Your task to perform on an android device: Search for custom t-shirts on Etsy. Image 0: 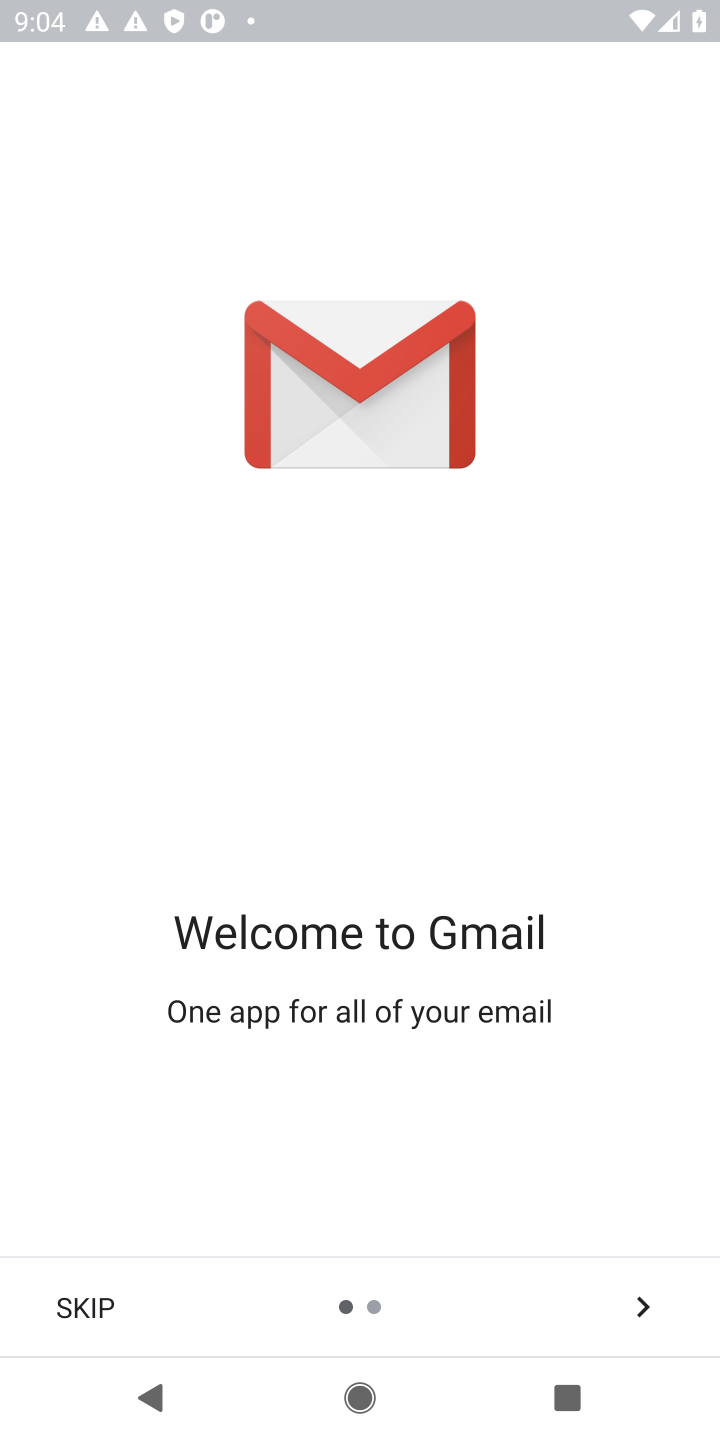
Step 0: press home button
Your task to perform on an android device: Search for custom t-shirts on Etsy. Image 1: 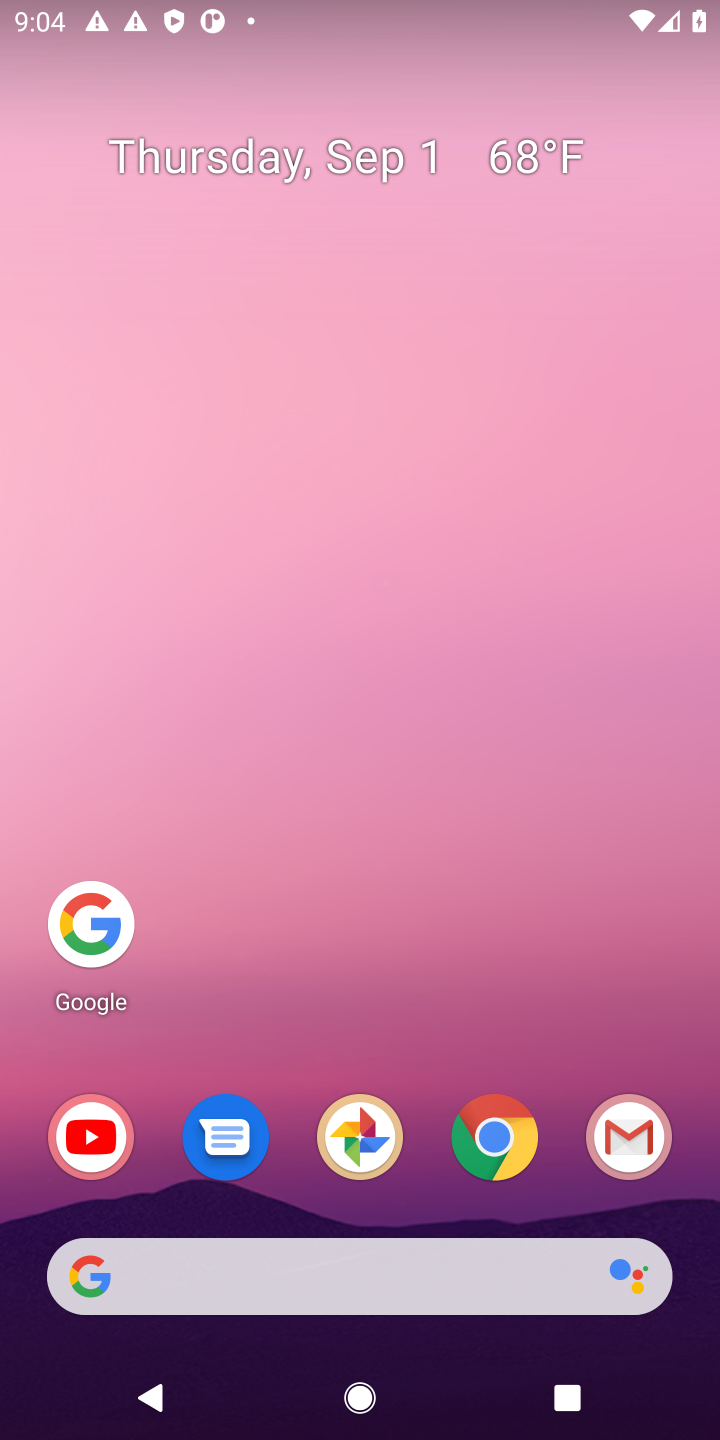
Step 1: click (162, 1278)
Your task to perform on an android device: Search for custom t-shirts on Etsy. Image 2: 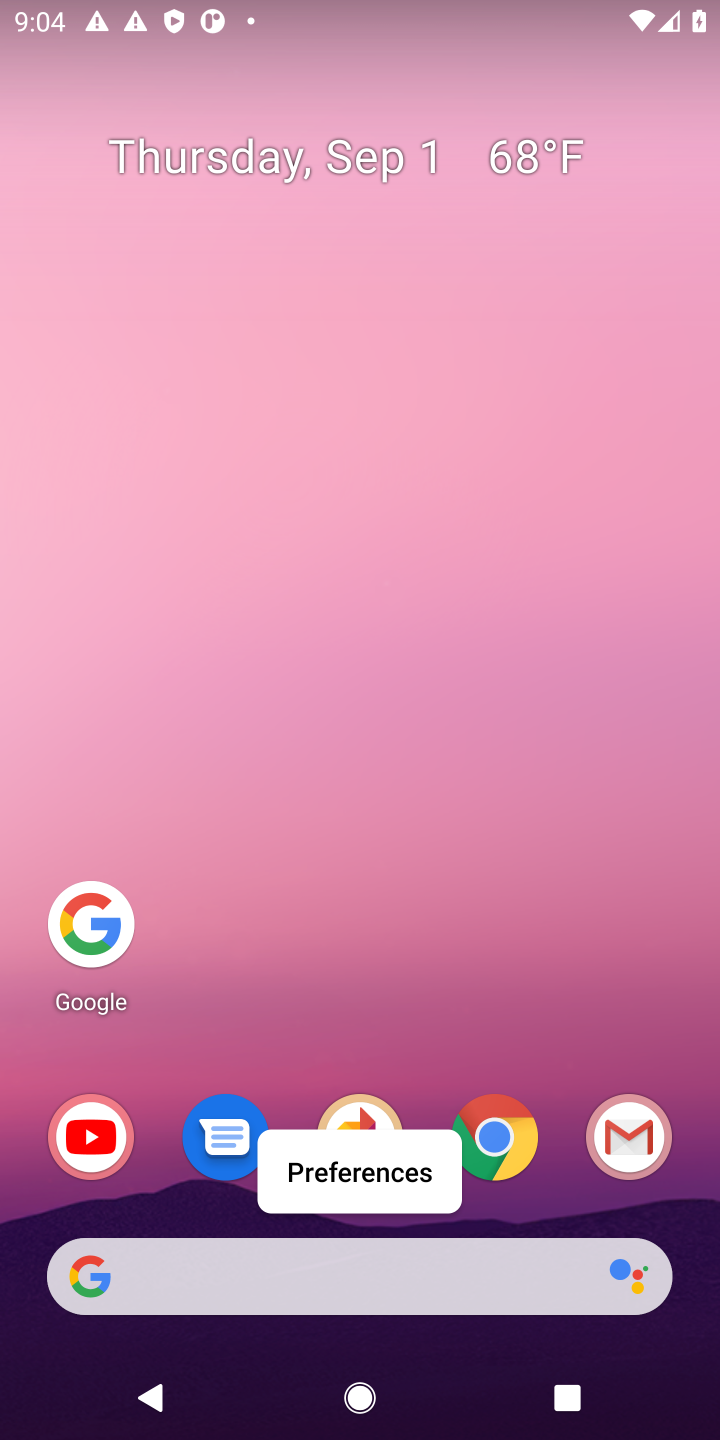
Step 2: click (97, 1282)
Your task to perform on an android device: Search for custom t-shirts on Etsy. Image 3: 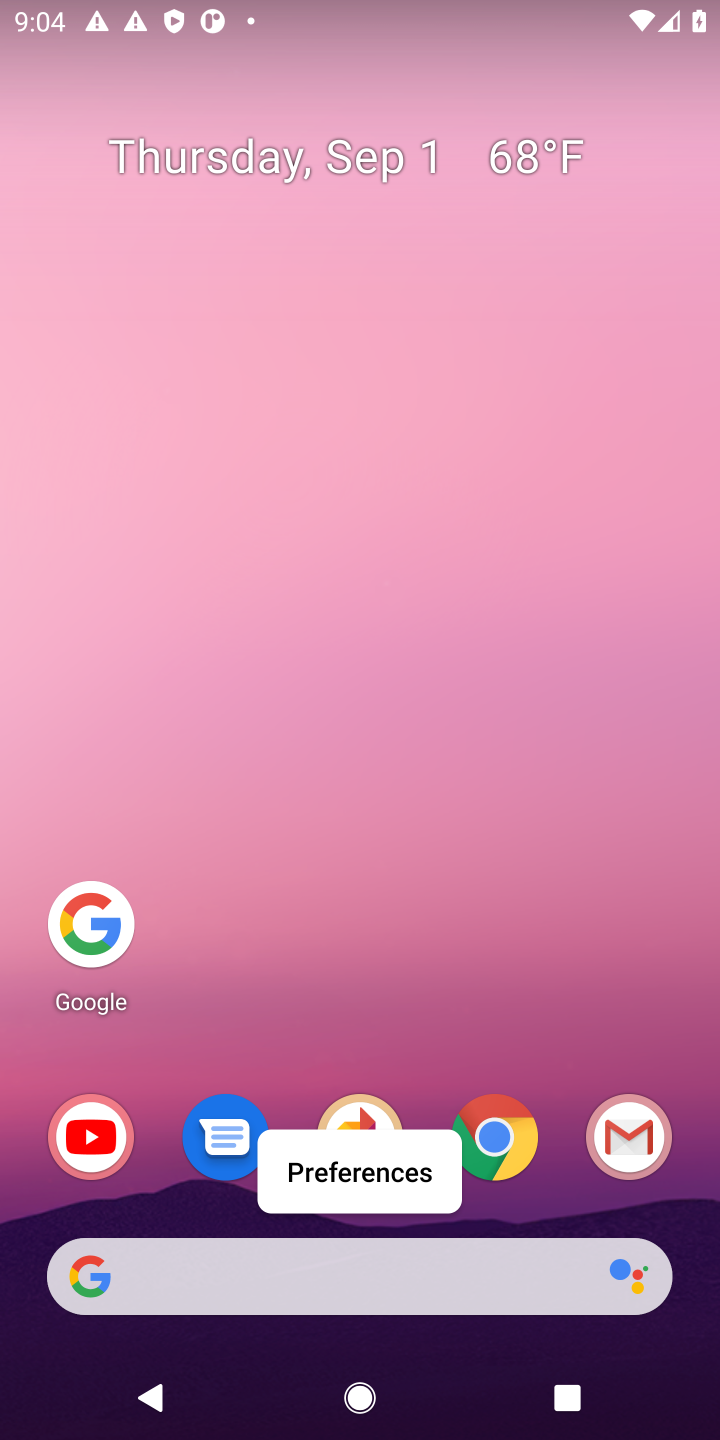
Step 3: click (85, 1297)
Your task to perform on an android device: Search for custom t-shirts on Etsy. Image 4: 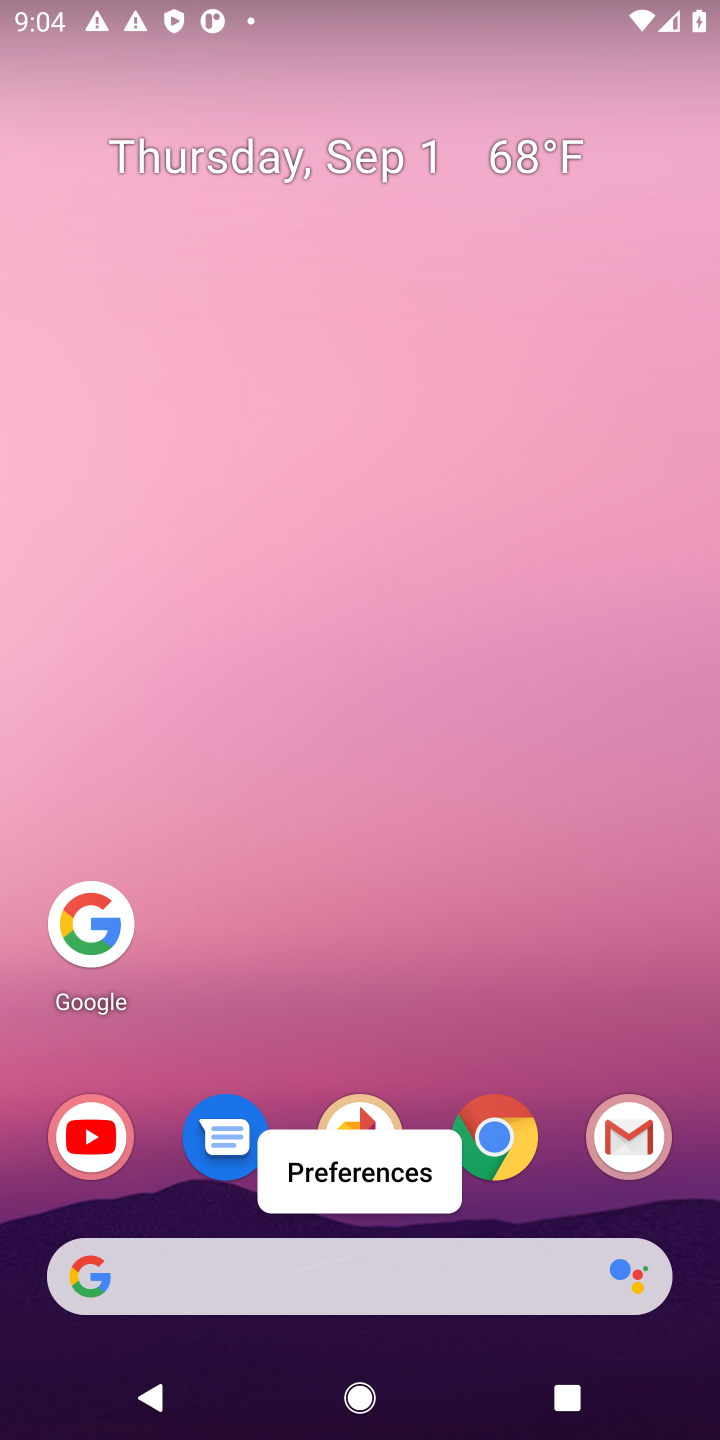
Step 4: click (81, 922)
Your task to perform on an android device: Search for custom t-shirts on Etsy. Image 5: 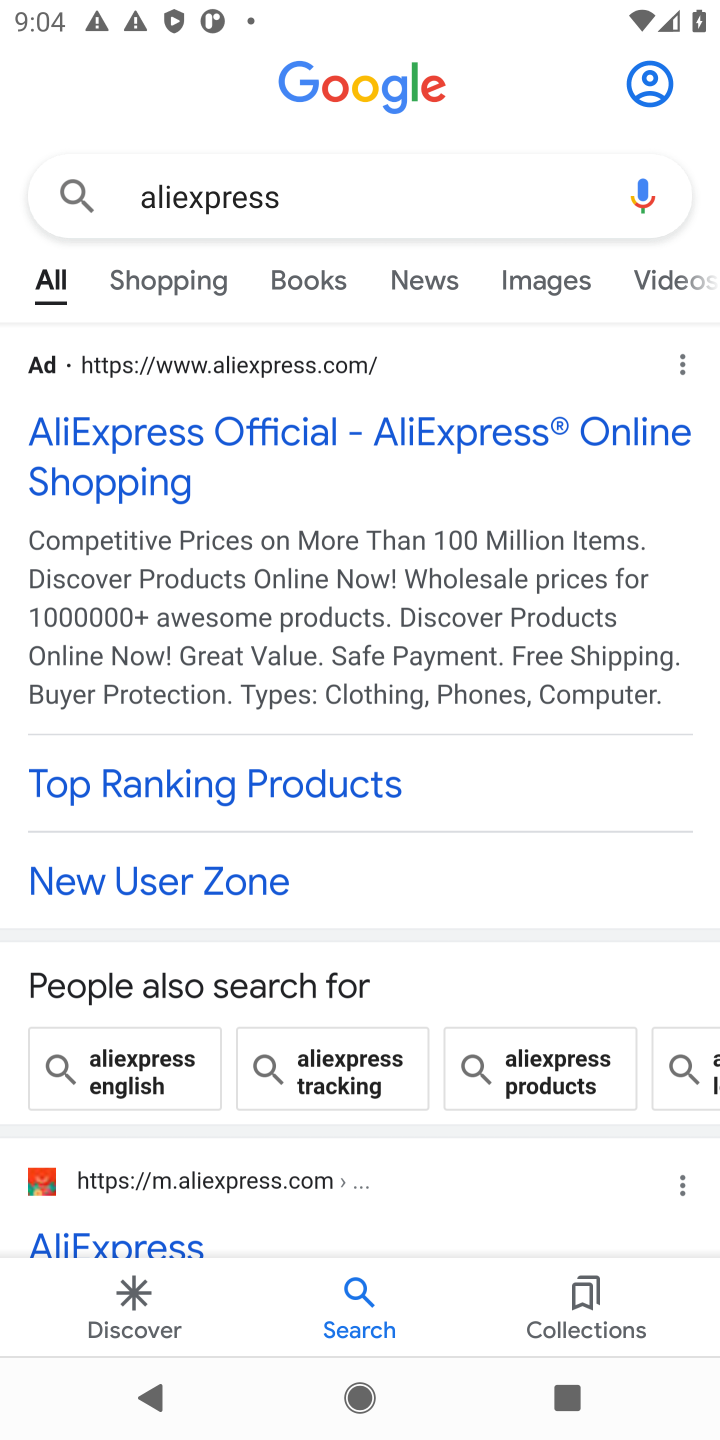
Step 5: click (345, 199)
Your task to perform on an android device: Search for custom t-shirts on Etsy. Image 6: 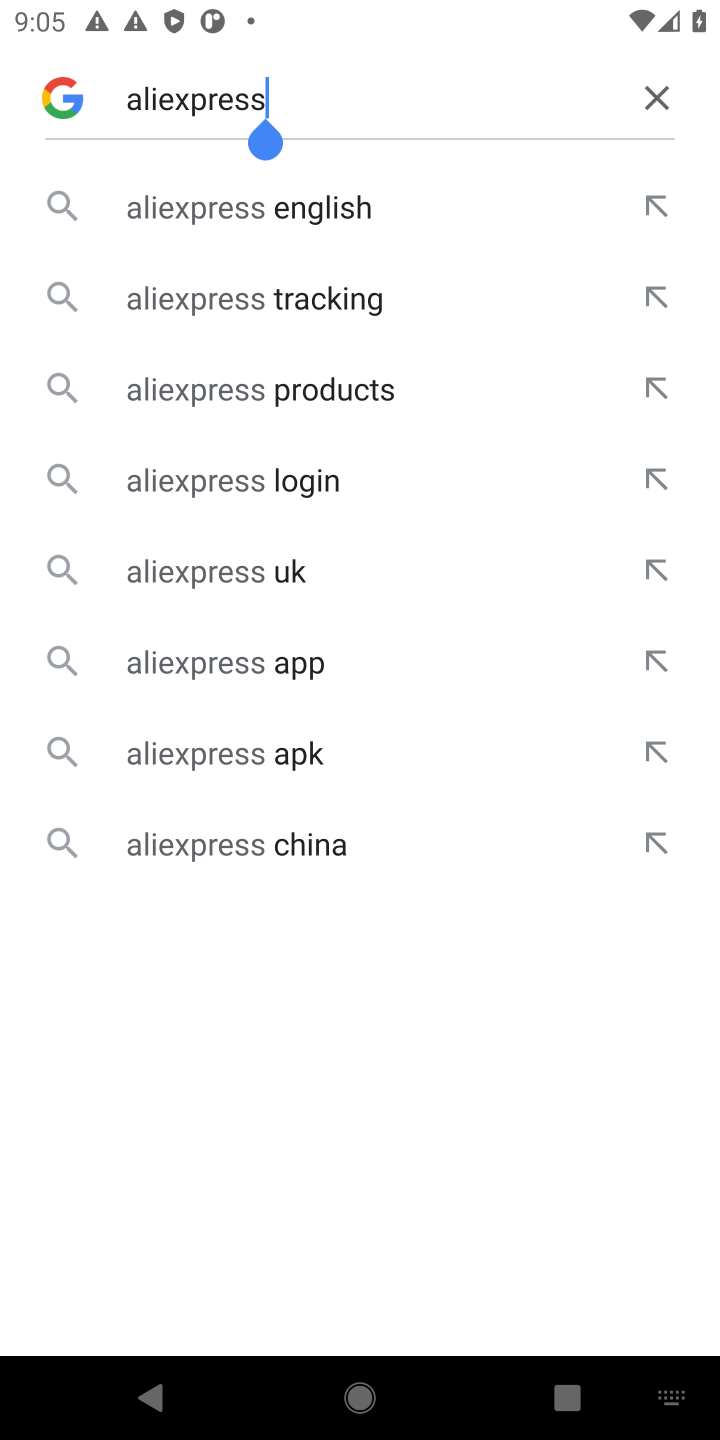
Step 6: click (658, 90)
Your task to perform on an android device: Search for custom t-shirts on Etsy. Image 7: 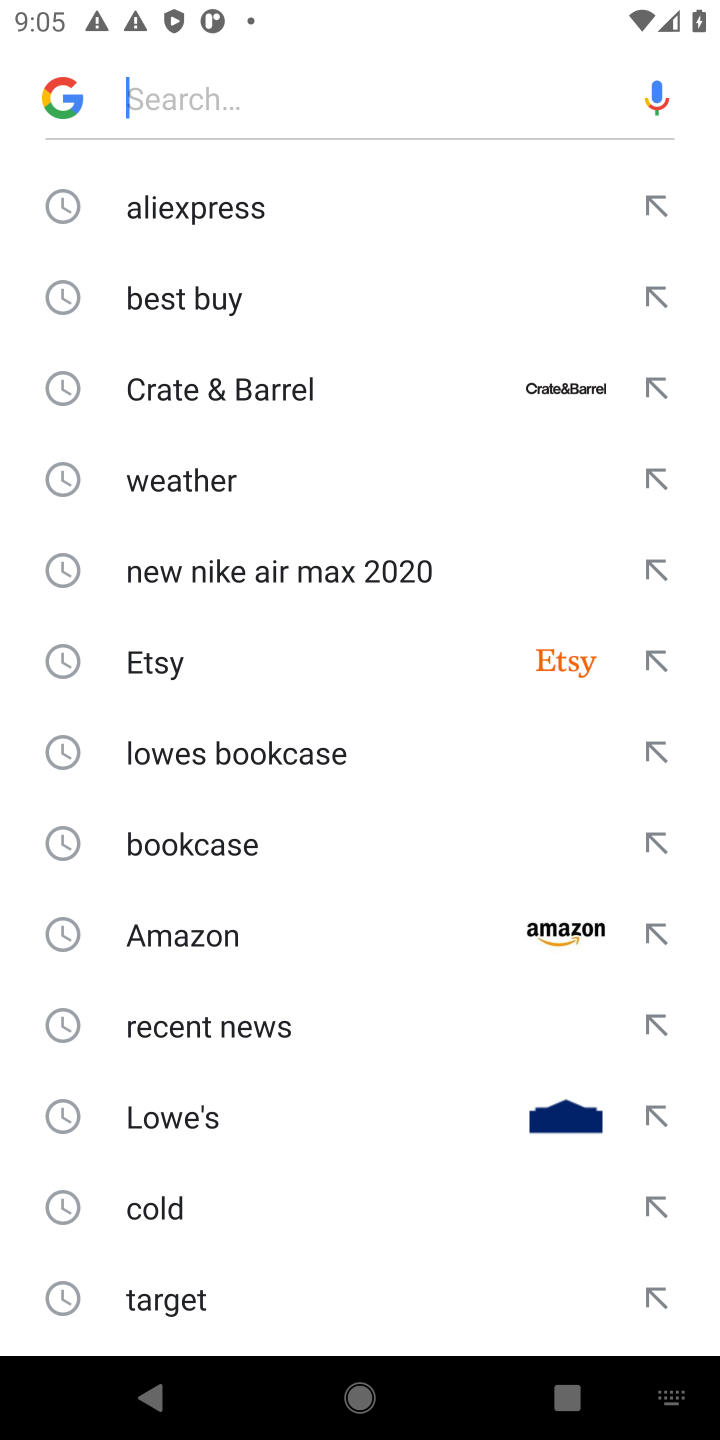
Step 7: type "etsy"
Your task to perform on an android device: Search for custom t-shirts on Etsy. Image 8: 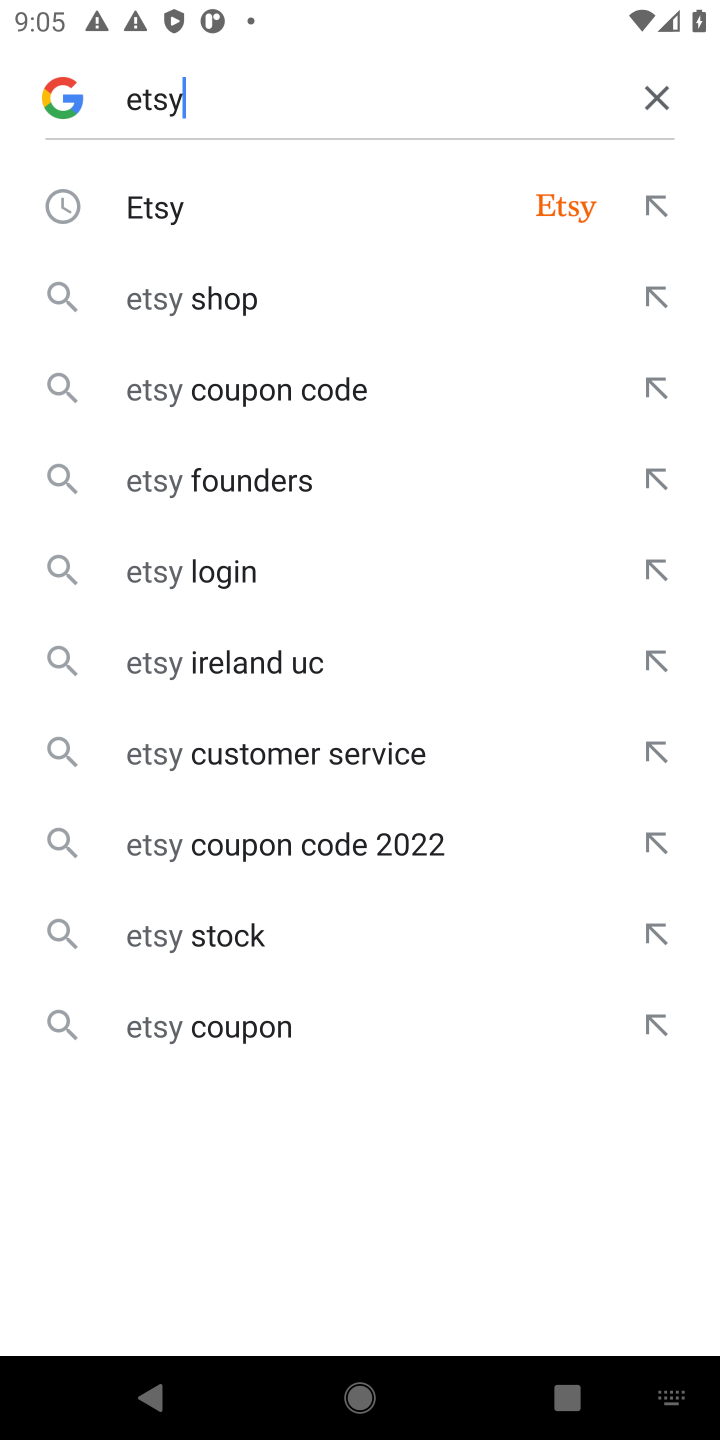
Step 8: click (147, 218)
Your task to perform on an android device: Search for custom t-shirts on Etsy. Image 9: 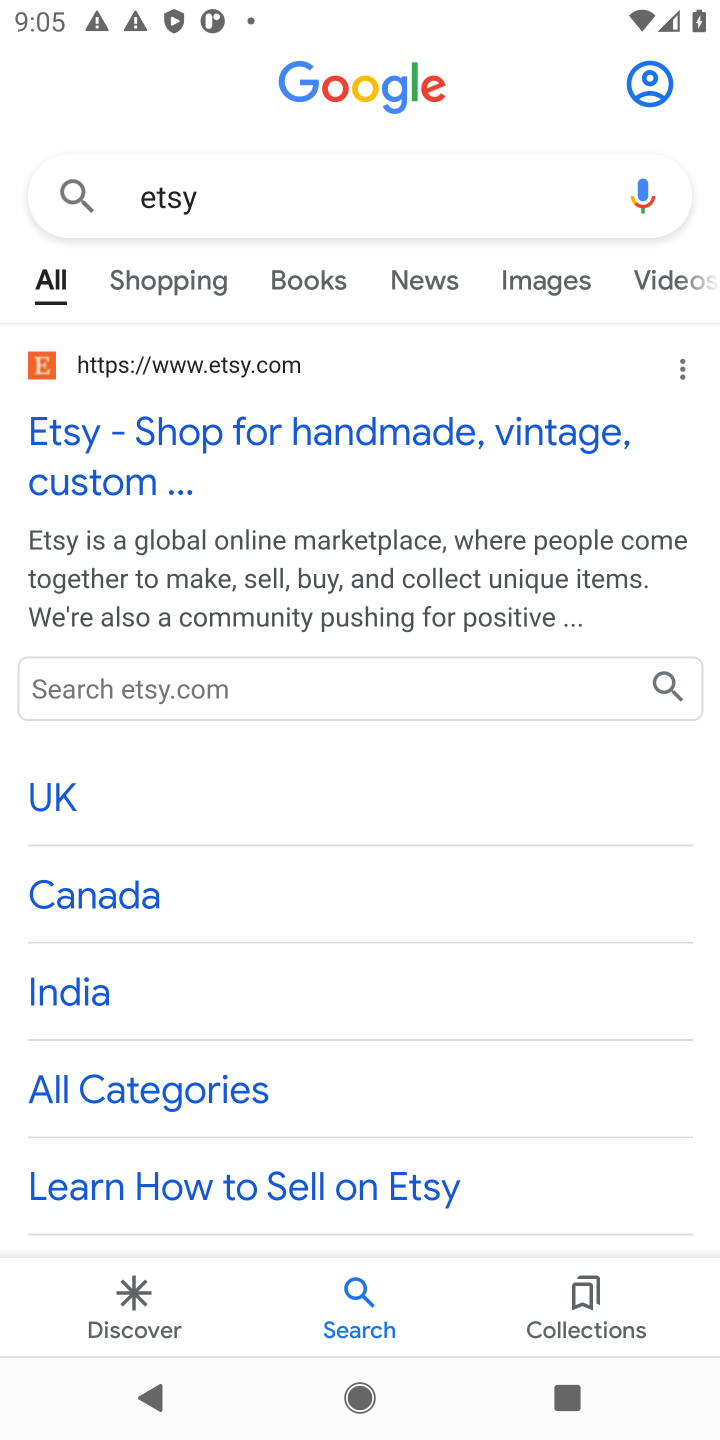
Step 9: click (157, 433)
Your task to perform on an android device: Search for custom t-shirts on Etsy. Image 10: 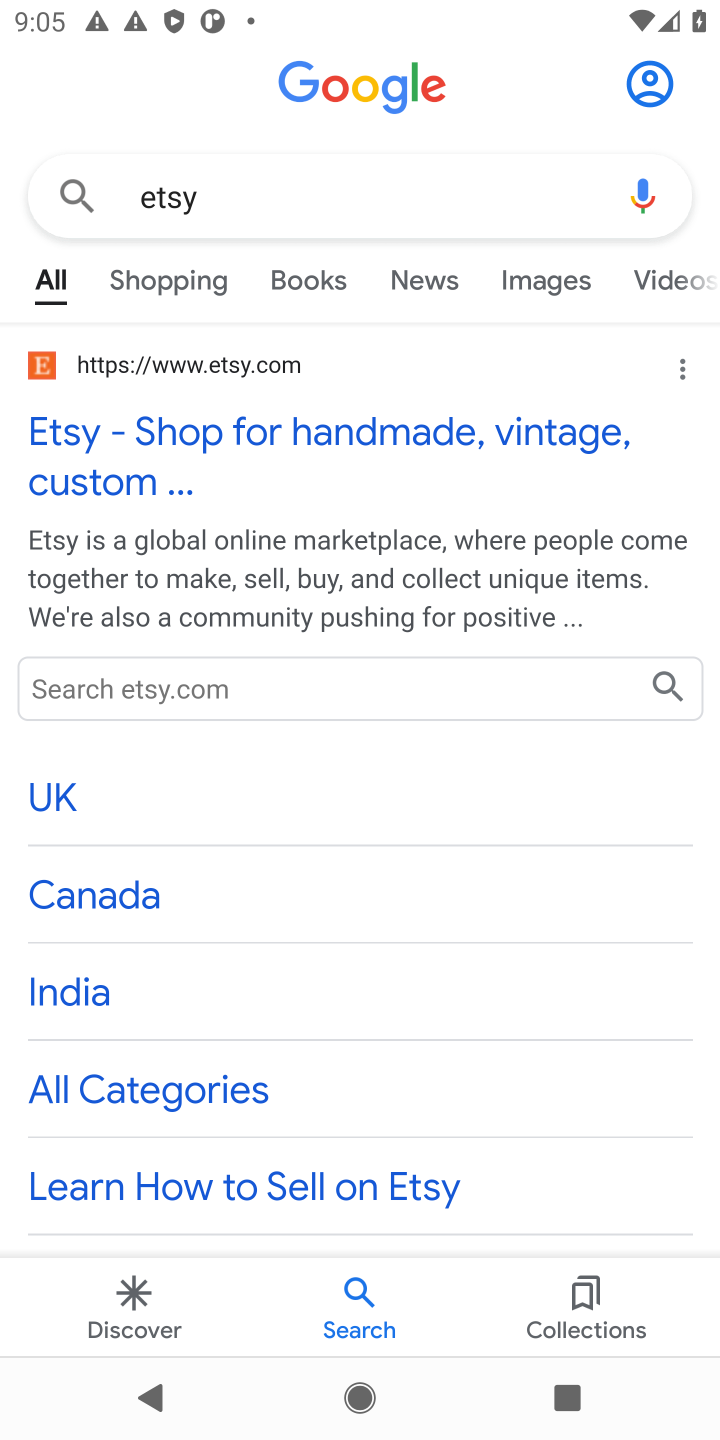
Step 10: click (289, 423)
Your task to perform on an android device: Search for custom t-shirts on Etsy. Image 11: 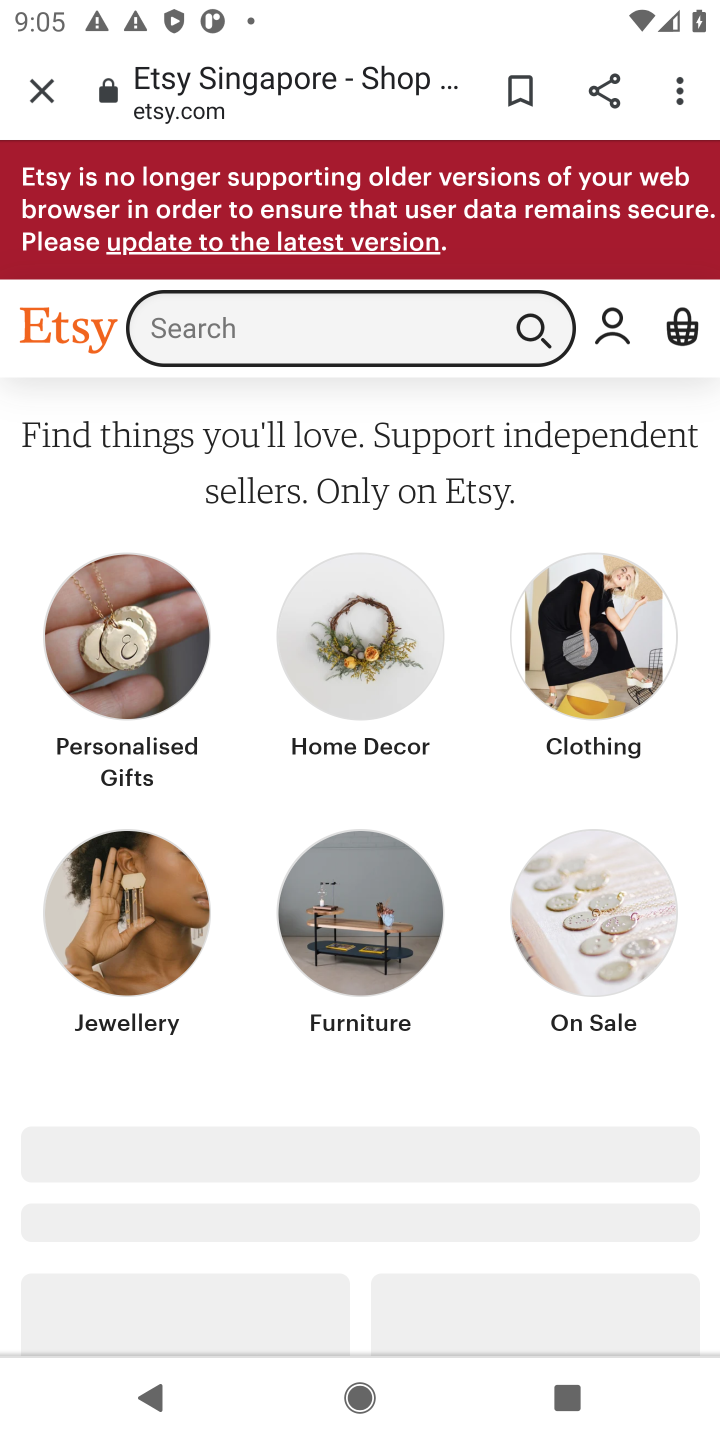
Step 11: click (297, 321)
Your task to perform on an android device: Search for custom t-shirts on Etsy. Image 12: 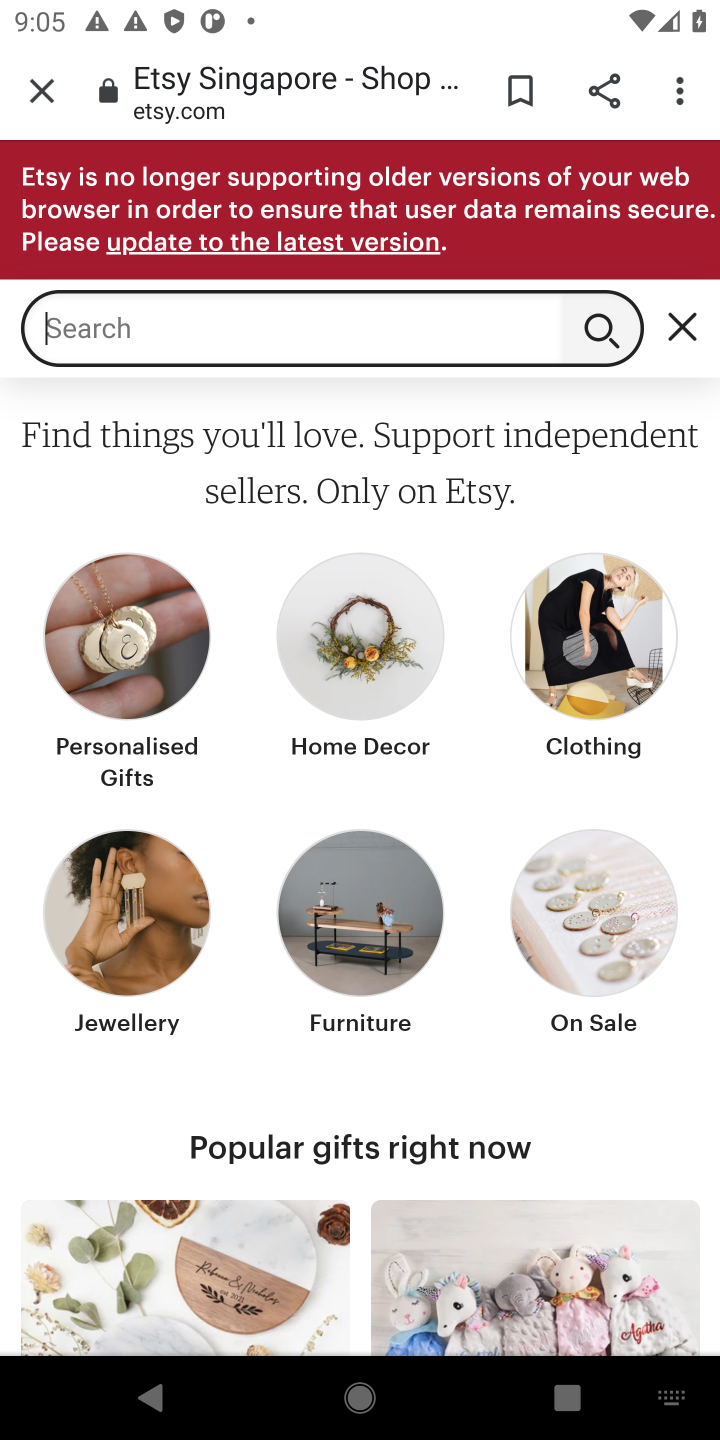
Step 12: type "custom t-shirts "
Your task to perform on an android device: Search for custom t-shirts on Etsy. Image 13: 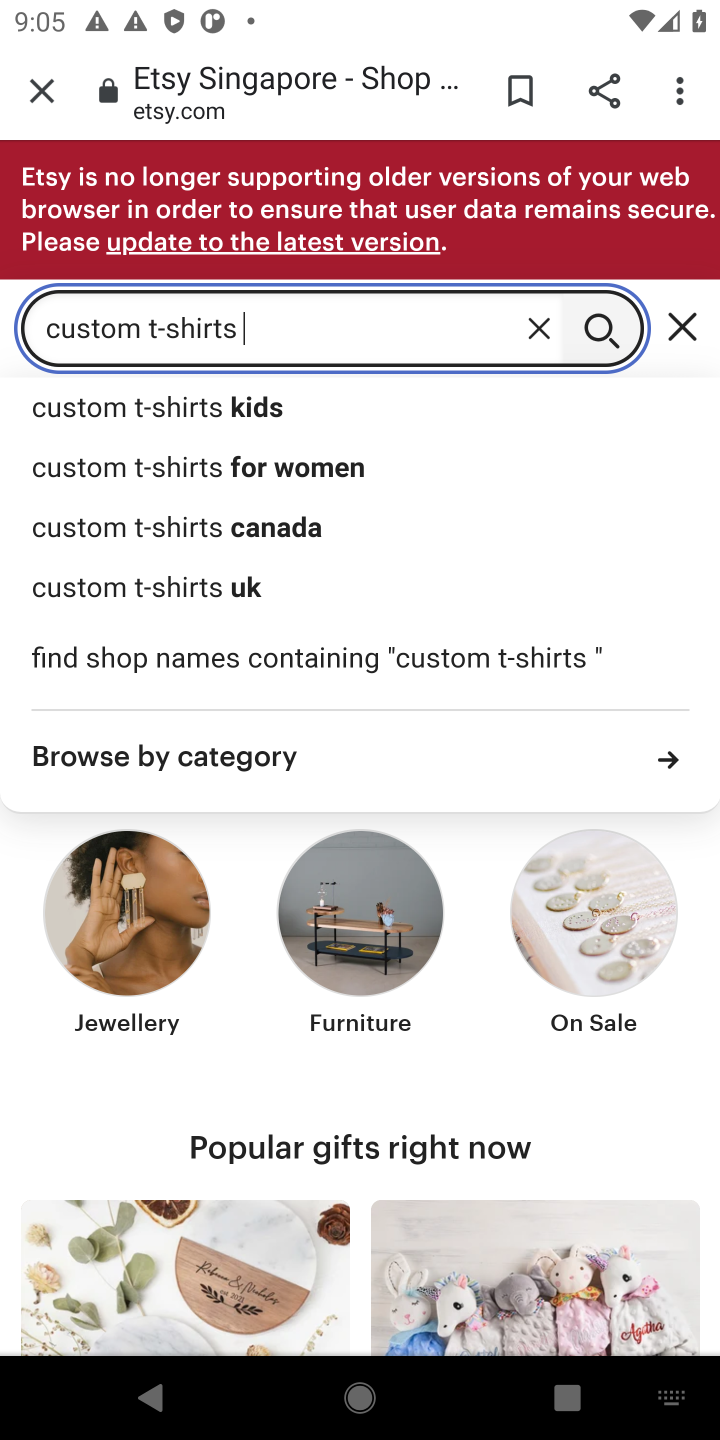
Step 13: click (585, 314)
Your task to perform on an android device: Search for custom t-shirts on Etsy. Image 14: 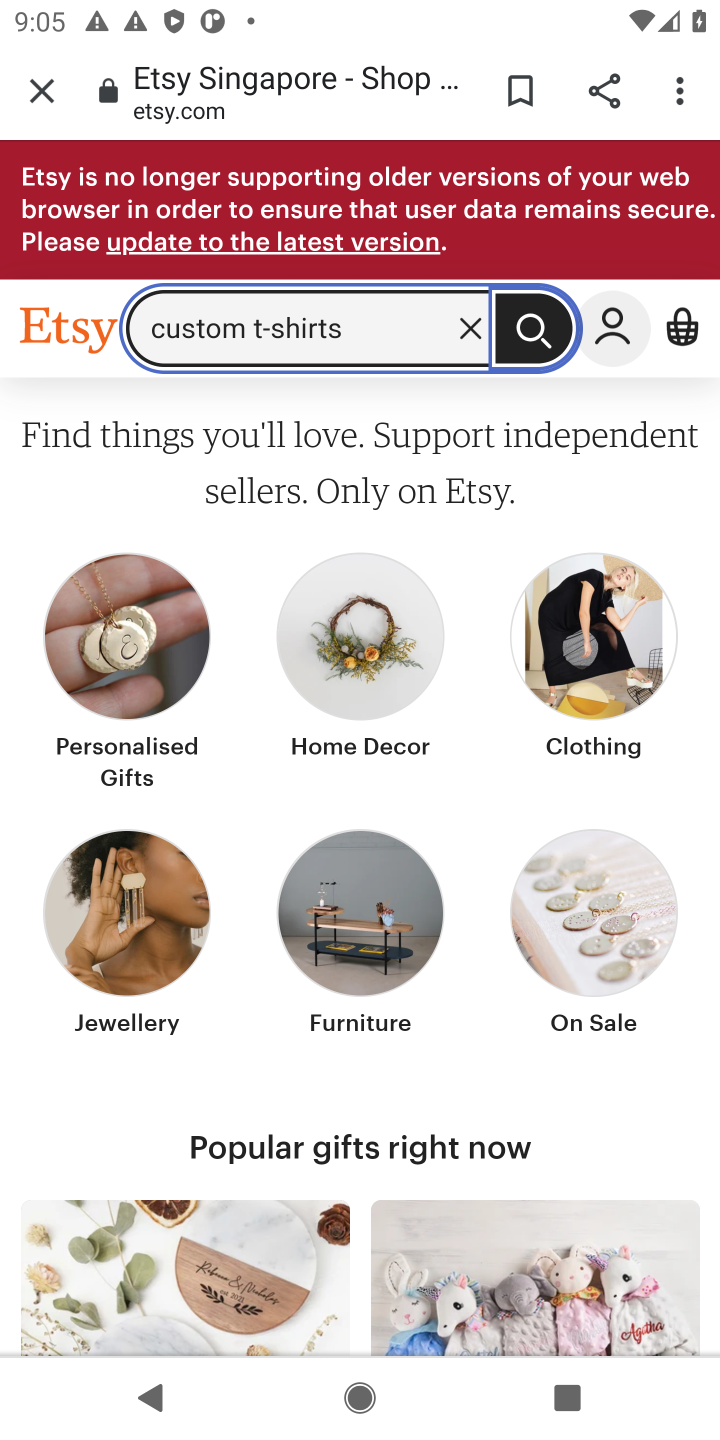
Step 14: click (548, 328)
Your task to perform on an android device: Search for custom t-shirts on Etsy. Image 15: 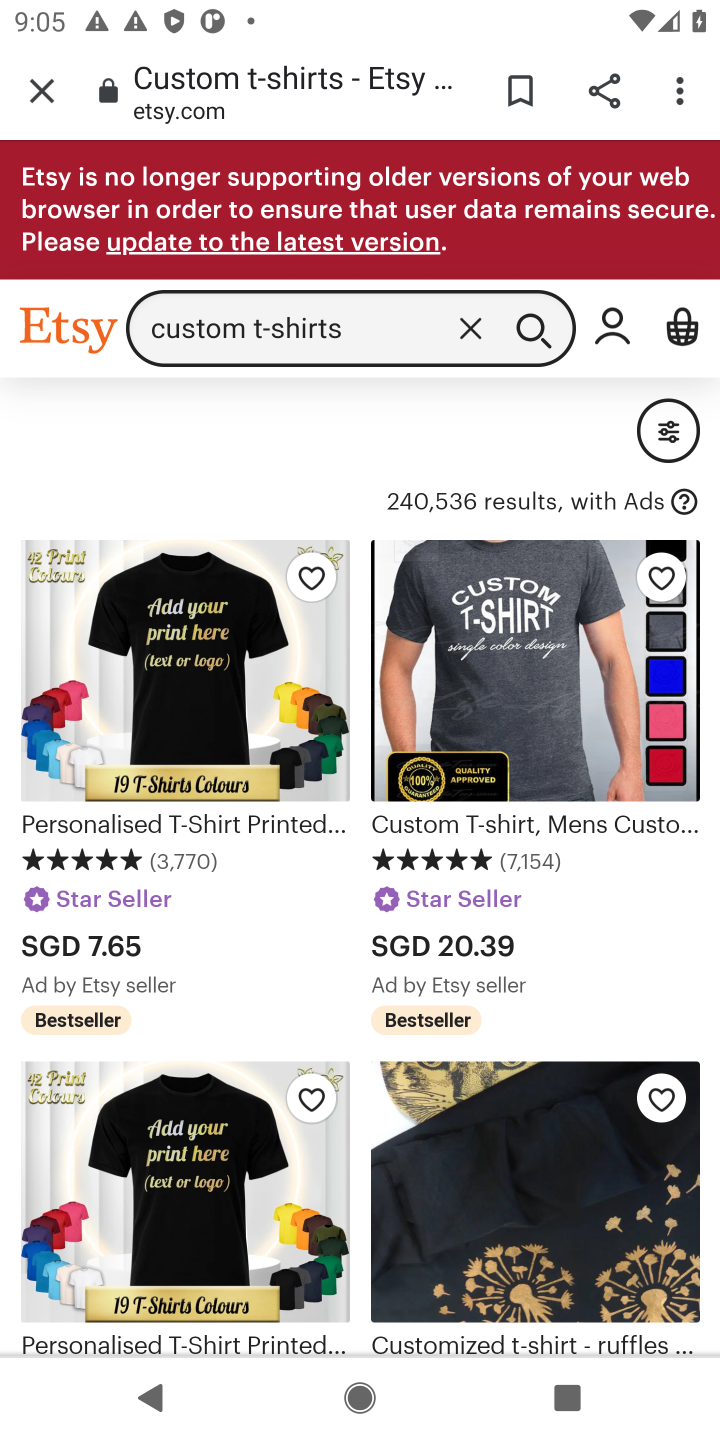
Step 15: task complete